Your task to perform on an android device: turn on improve location accuracy Image 0: 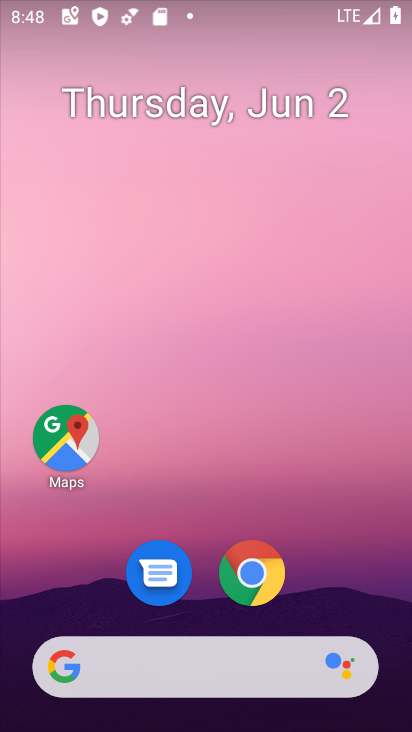
Step 0: press home button
Your task to perform on an android device: turn on improve location accuracy Image 1: 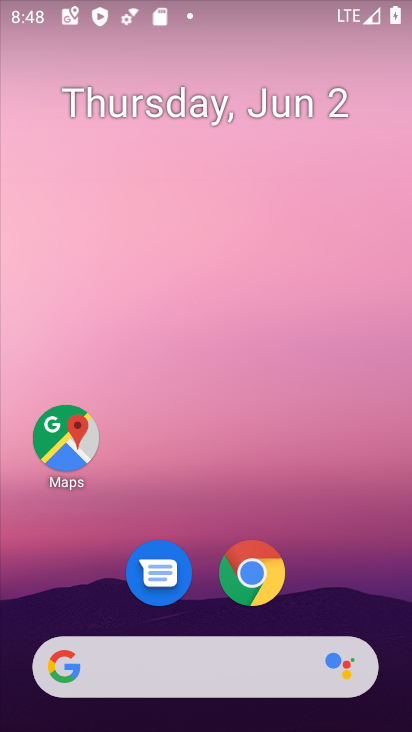
Step 1: drag from (344, 563) to (165, 10)
Your task to perform on an android device: turn on improve location accuracy Image 2: 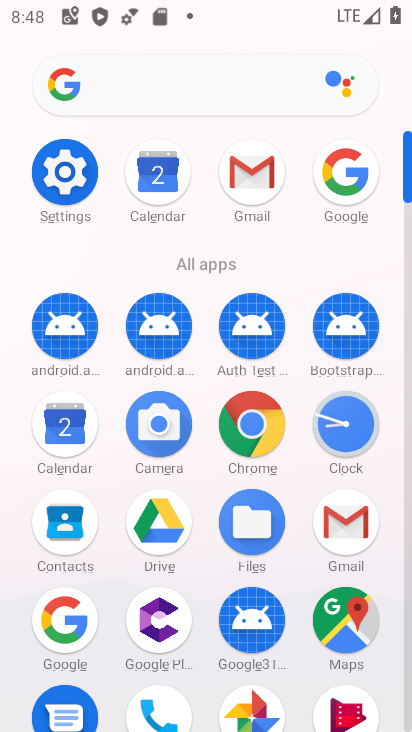
Step 2: click (68, 169)
Your task to perform on an android device: turn on improve location accuracy Image 3: 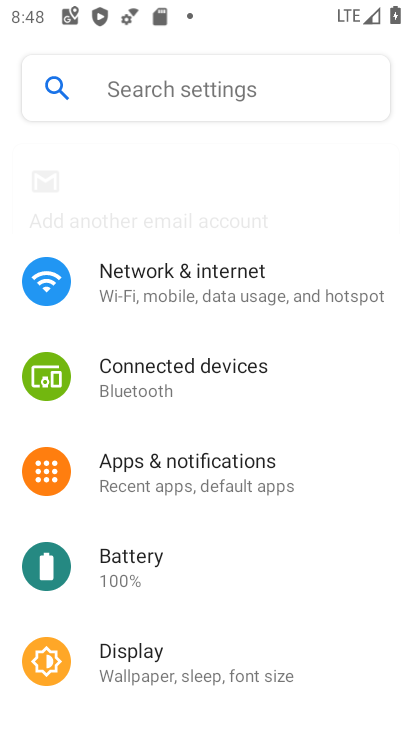
Step 3: drag from (275, 529) to (191, 12)
Your task to perform on an android device: turn on improve location accuracy Image 4: 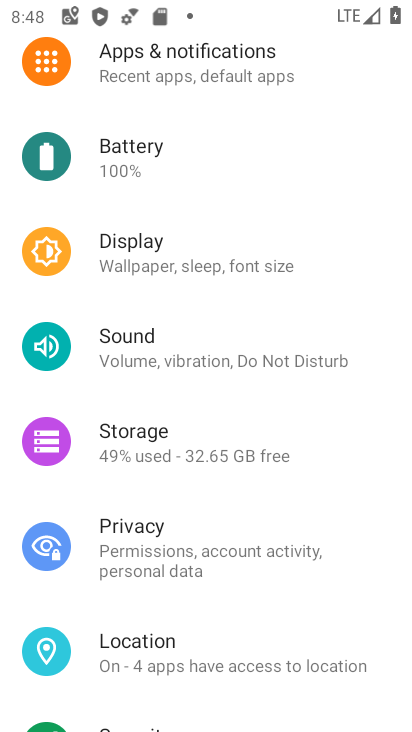
Step 4: click (151, 652)
Your task to perform on an android device: turn on improve location accuracy Image 5: 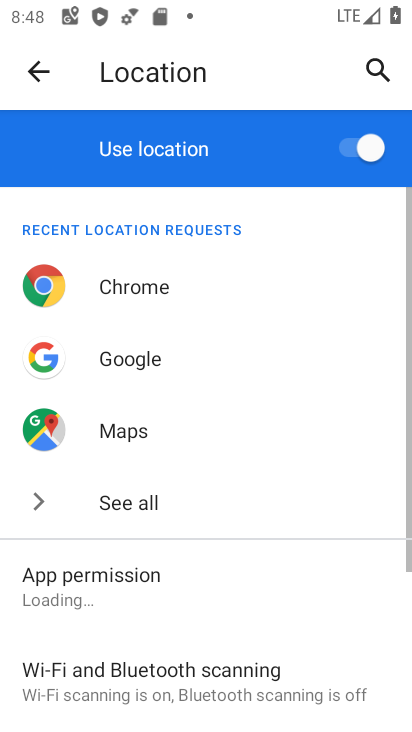
Step 5: drag from (198, 625) to (151, 105)
Your task to perform on an android device: turn on improve location accuracy Image 6: 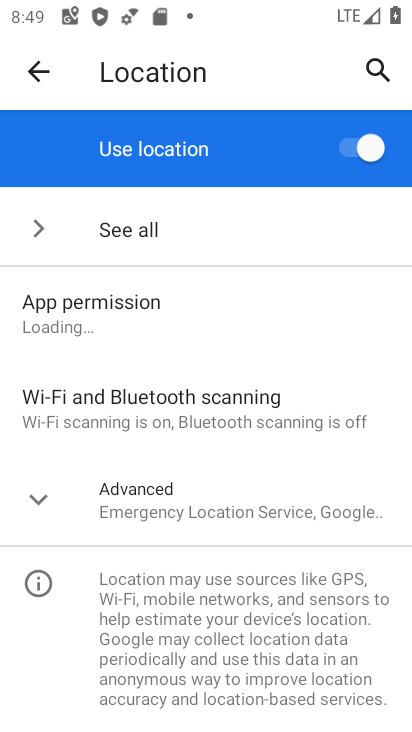
Step 6: click (161, 481)
Your task to perform on an android device: turn on improve location accuracy Image 7: 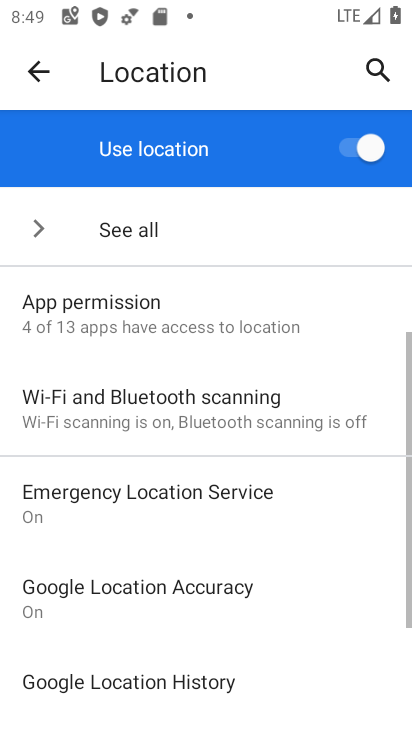
Step 7: click (153, 609)
Your task to perform on an android device: turn on improve location accuracy Image 8: 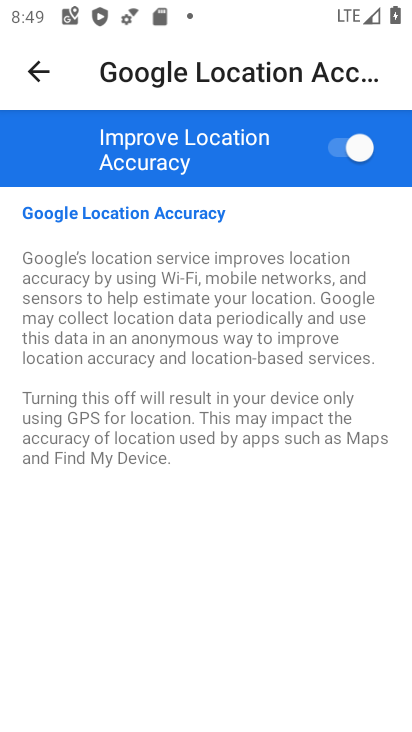
Step 8: click (161, 159)
Your task to perform on an android device: turn on improve location accuracy Image 9: 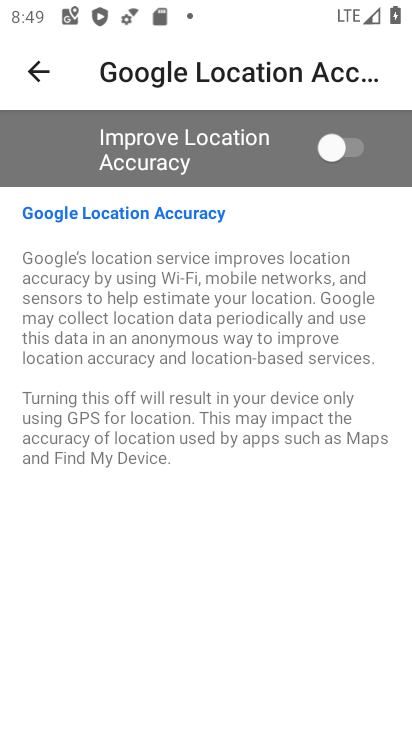
Step 9: click (161, 159)
Your task to perform on an android device: turn on improve location accuracy Image 10: 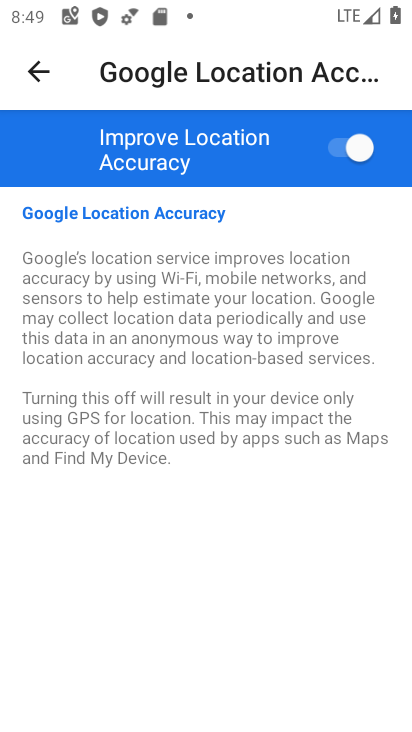
Step 10: task complete